Your task to perform on an android device: turn off priority inbox in the gmail app Image 0: 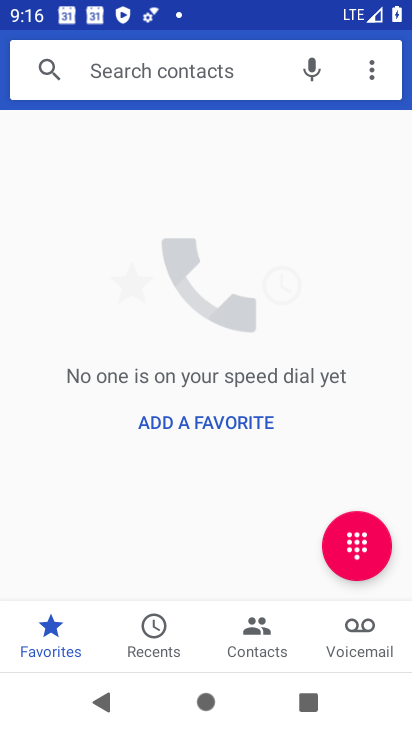
Step 0: press home button
Your task to perform on an android device: turn off priority inbox in the gmail app Image 1: 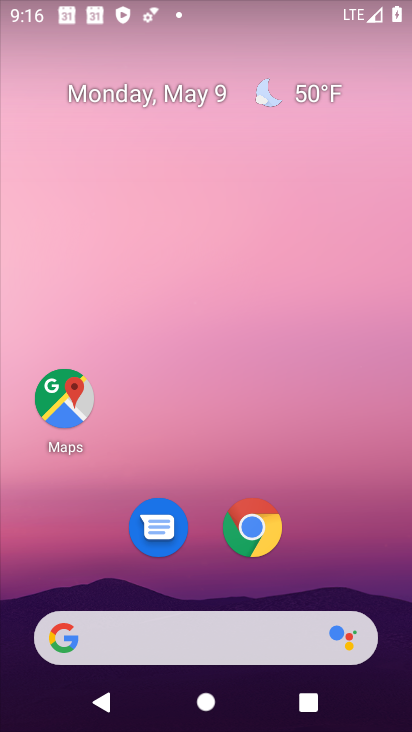
Step 1: drag from (300, 562) to (367, 36)
Your task to perform on an android device: turn off priority inbox in the gmail app Image 2: 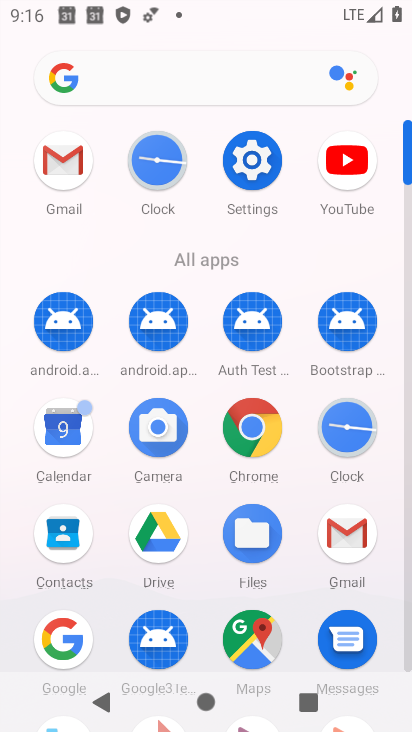
Step 2: click (336, 536)
Your task to perform on an android device: turn off priority inbox in the gmail app Image 3: 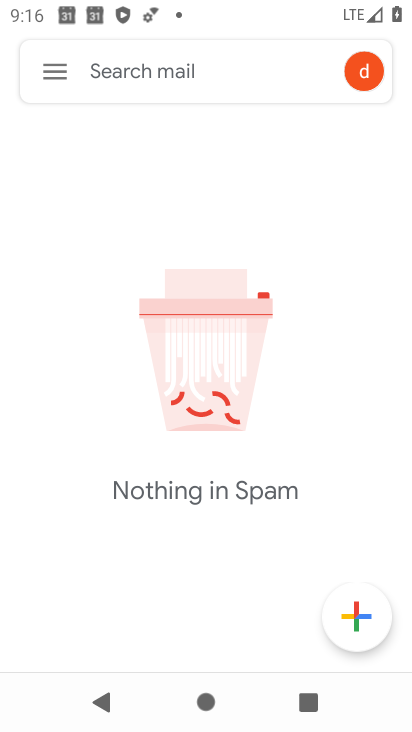
Step 3: click (52, 91)
Your task to perform on an android device: turn off priority inbox in the gmail app Image 4: 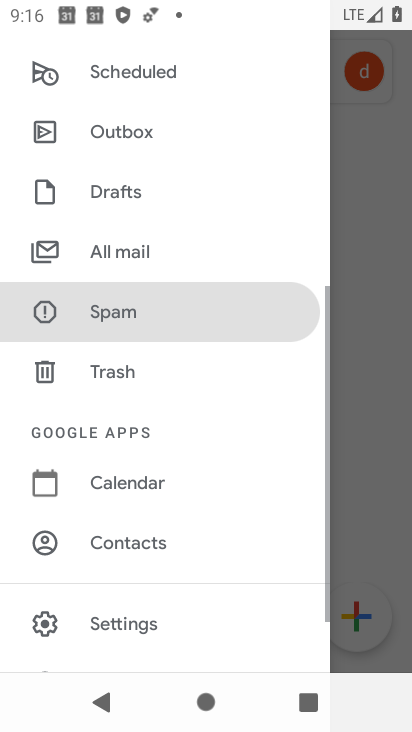
Step 4: click (95, 627)
Your task to perform on an android device: turn off priority inbox in the gmail app Image 5: 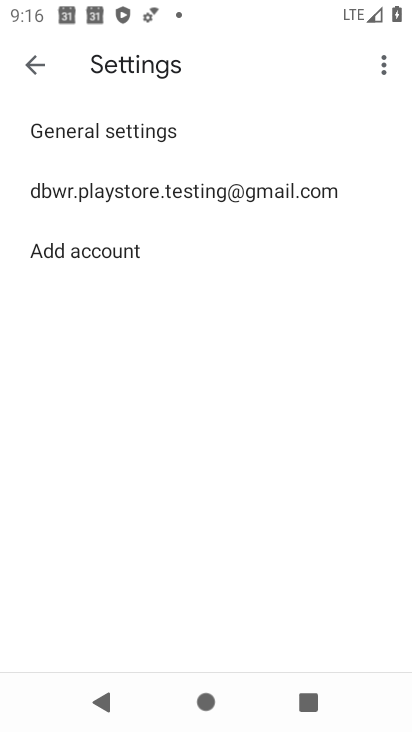
Step 5: click (139, 186)
Your task to perform on an android device: turn off priority inbox in the gmail app Image 6: 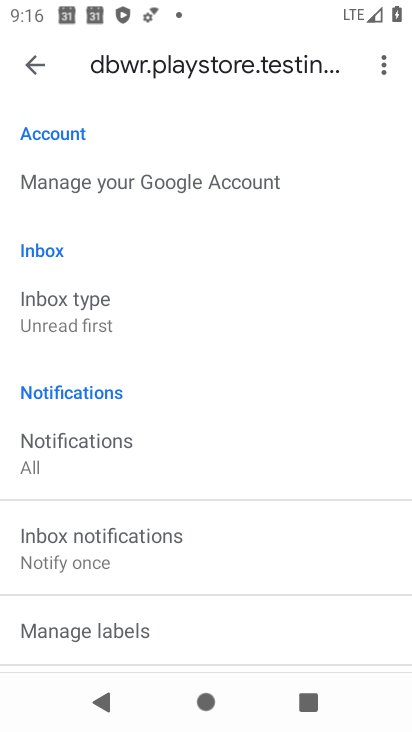
Step 6: click (90, 329)
Your task to perform on an android device: turn off priority inbox in the gmail app Image 7: 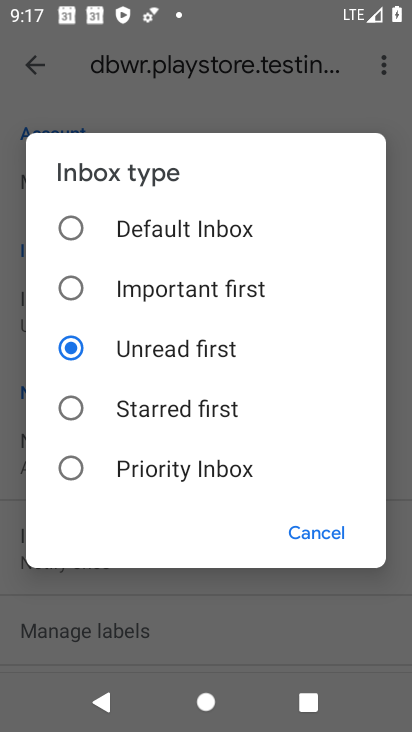
Step 7: click (103, 468)
Your task to perform on an android device: turn off priority inbox in the gmail app Image 8: 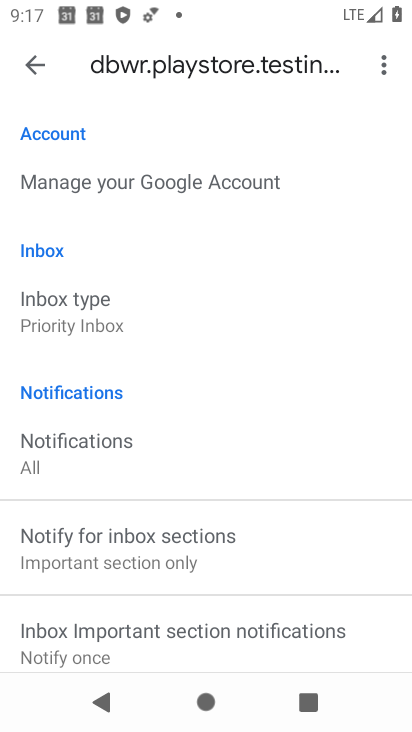
Step 8: task complete